Your task to perform on an android device: Search for acer nitro on costco.com, select the first entry, and add it to the cart. Image 0: 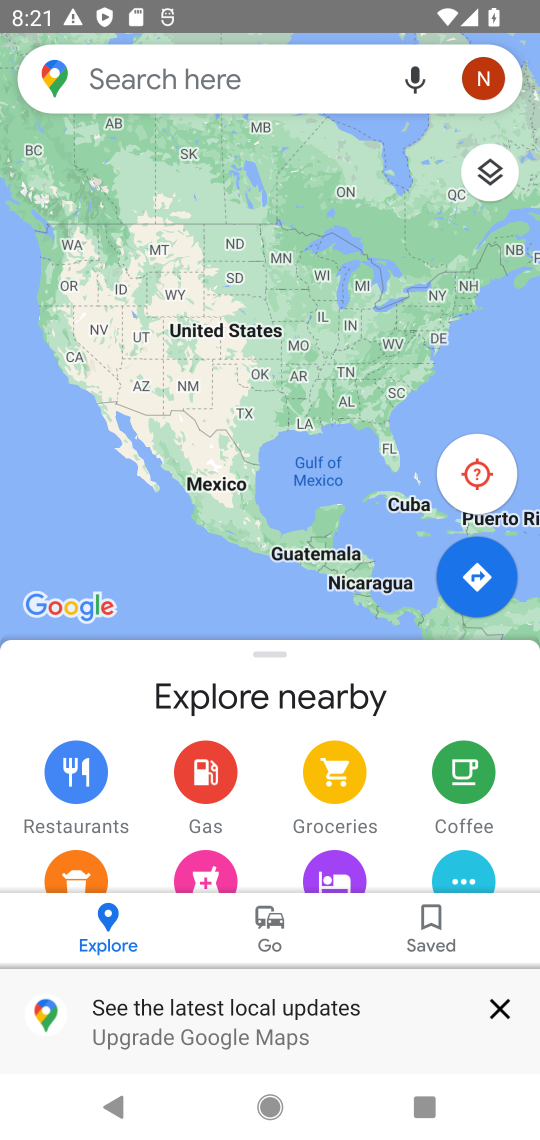
Step 0: press home button
Your task to perform on an android device: Search for acer nitro on costco.com, select the first entry, and add it to the cart. Image 1: 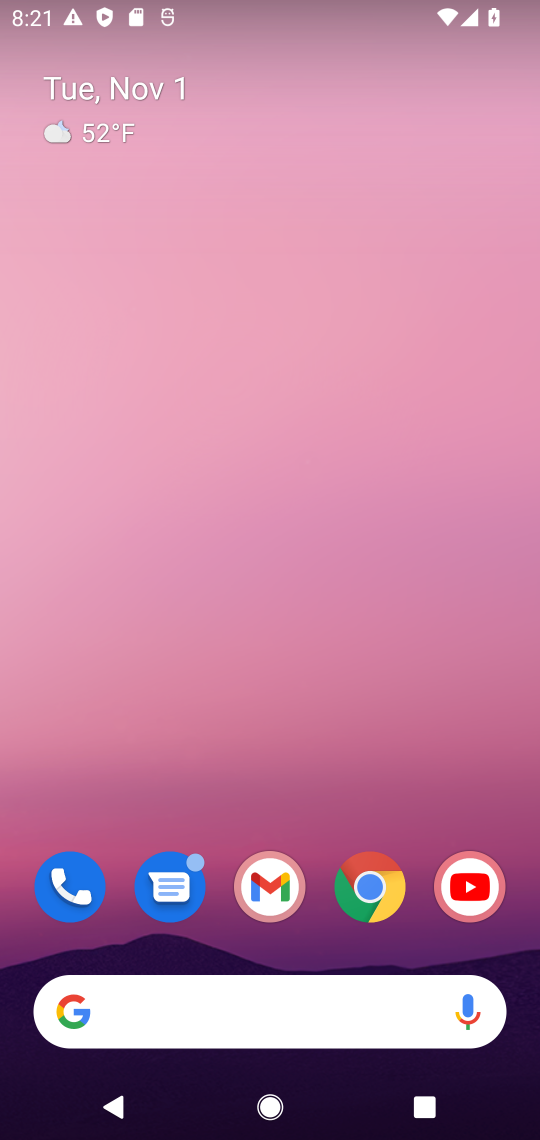
Step 1: drag from (151, 916) to (176, 227)
Your task to perform on an android device: Search for acer nitro on costco.com, select the first entry, and add it to the cart. Image 2: 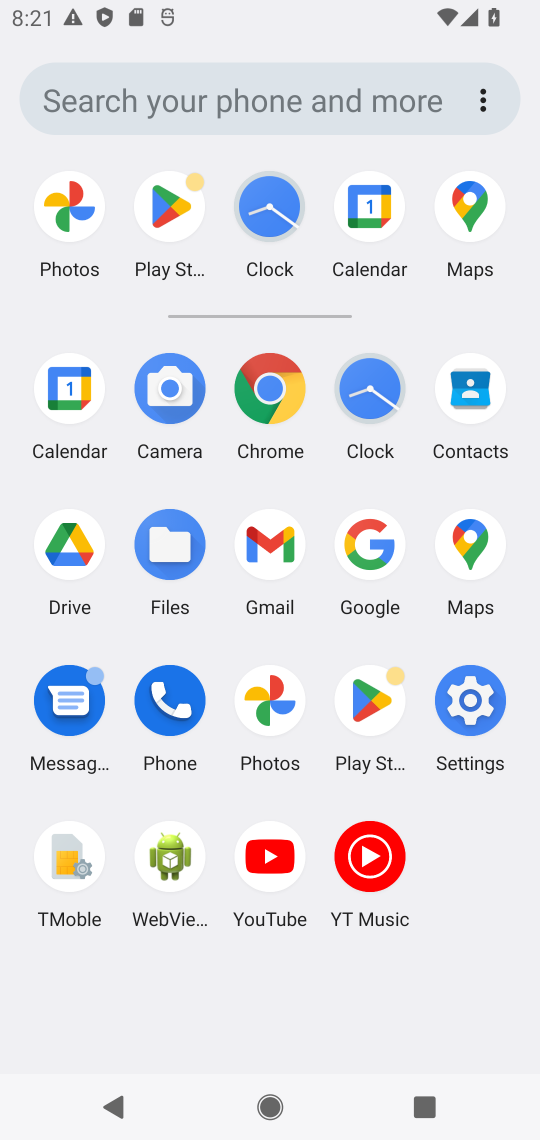
Step 2: click (366, 529)
Your task to perform on an android device: Search for acer nitro on costco.com, select the first entry, and add it to the cart. Image 3: 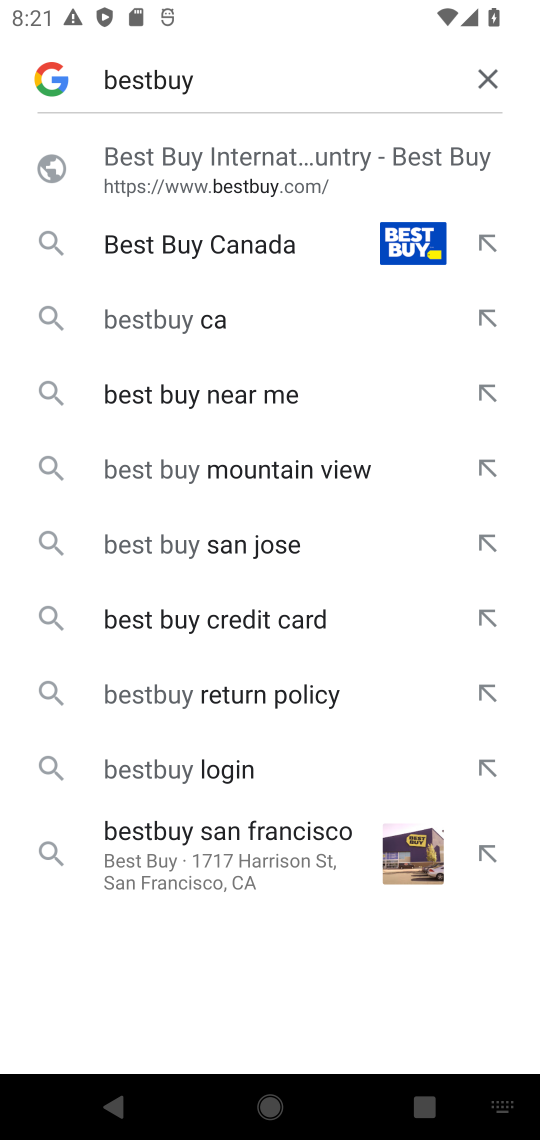
Step 3: click (481, 76)
Your task to perform on an android device: Search for acer nitro on costco.com, select the first entry, and add it to the cart. Image 4: 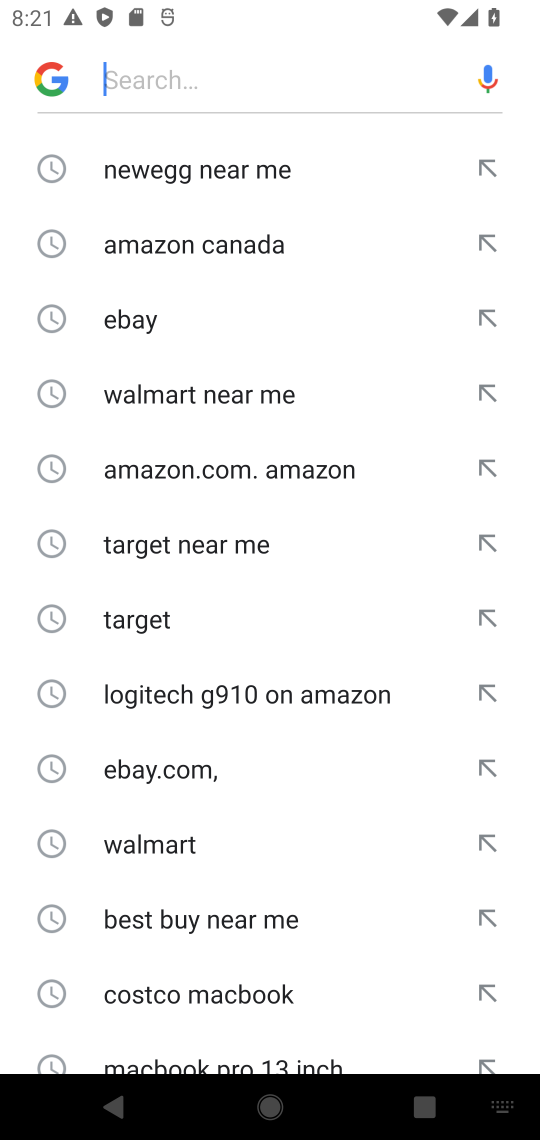
Step 4: click (237, 67)
Your task to perform on an android device: Search for acer nitro on costco.com, select the first entry, and add it to the cart. Image 5: 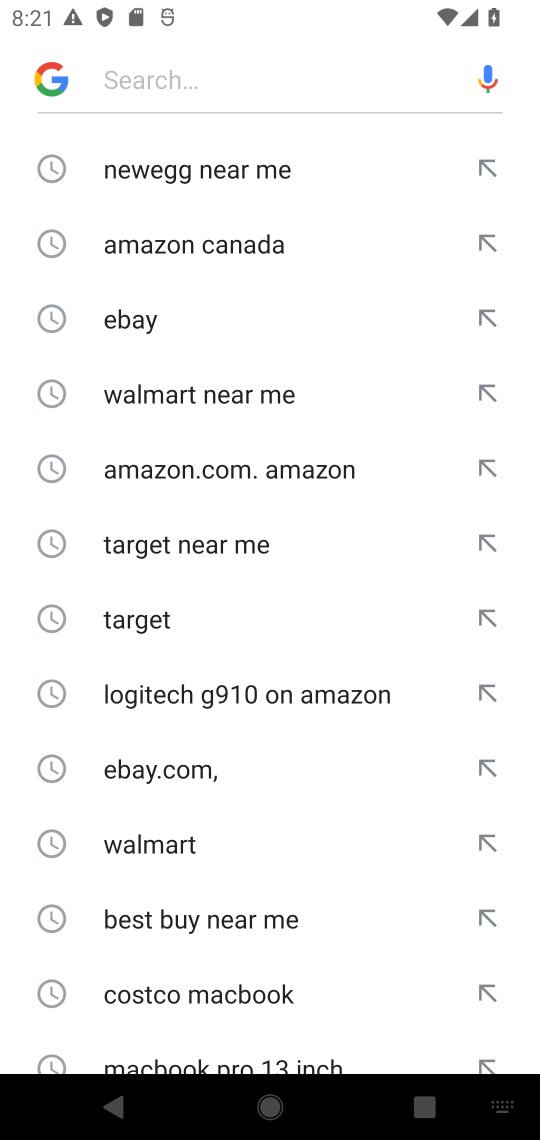
Step 5: type "costco "
Your task to perform on an android device: Search for acer nitro on costco.com, select the first entry, and add it to the cart. Image 6: 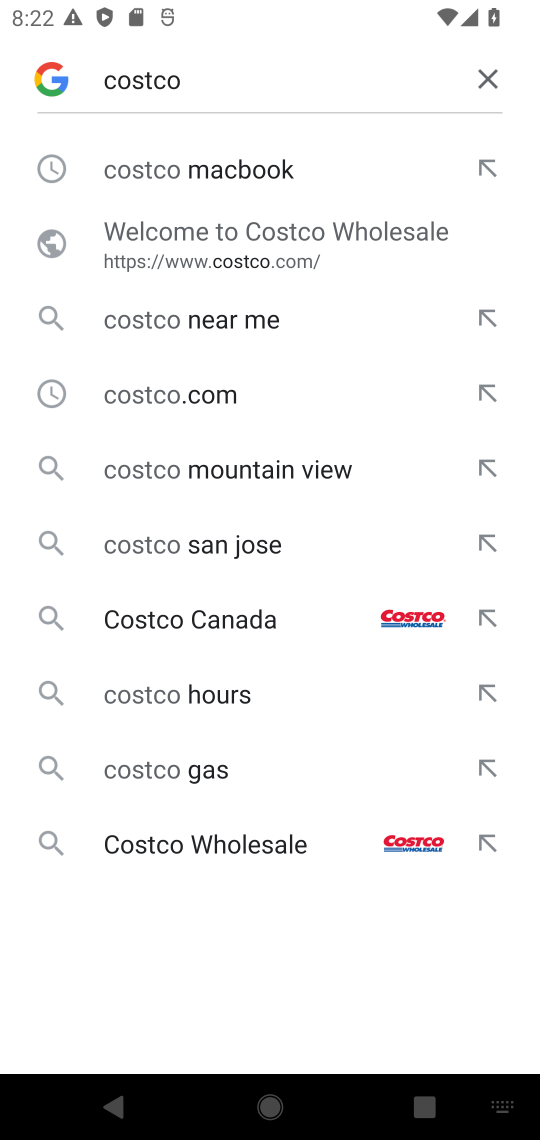
Step 6: click (193, 395)
Your task to perform on an android device: Search for acer nitro on costco.com, select the first entry, and add it to the cart. Image 7: 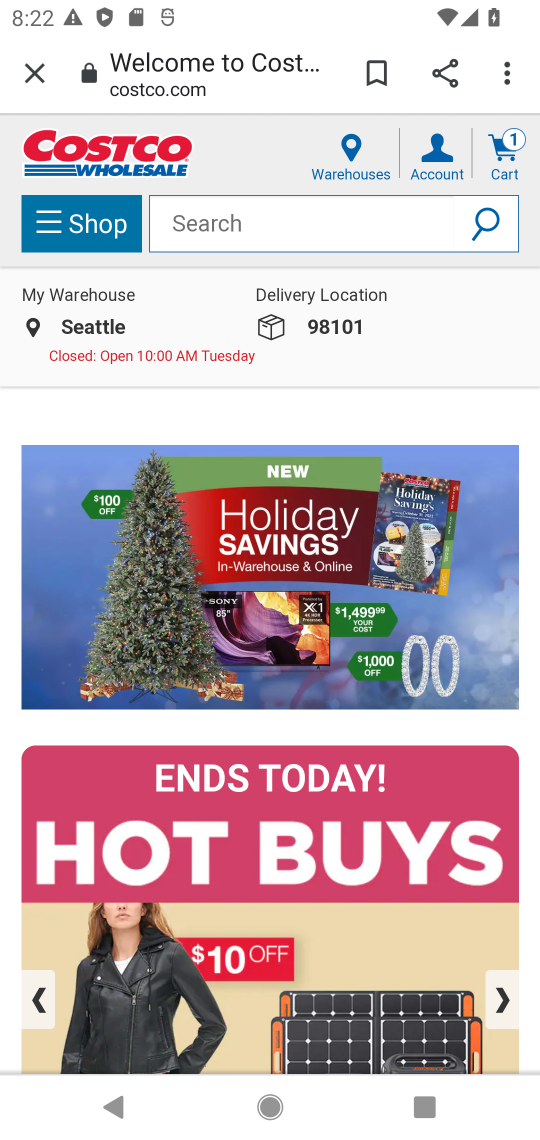
Step 7: click (192, 224)
Your task to perform on an android device: Search for acer nitro on costco.com, select the first entry, and add it to the cart. Image 8: 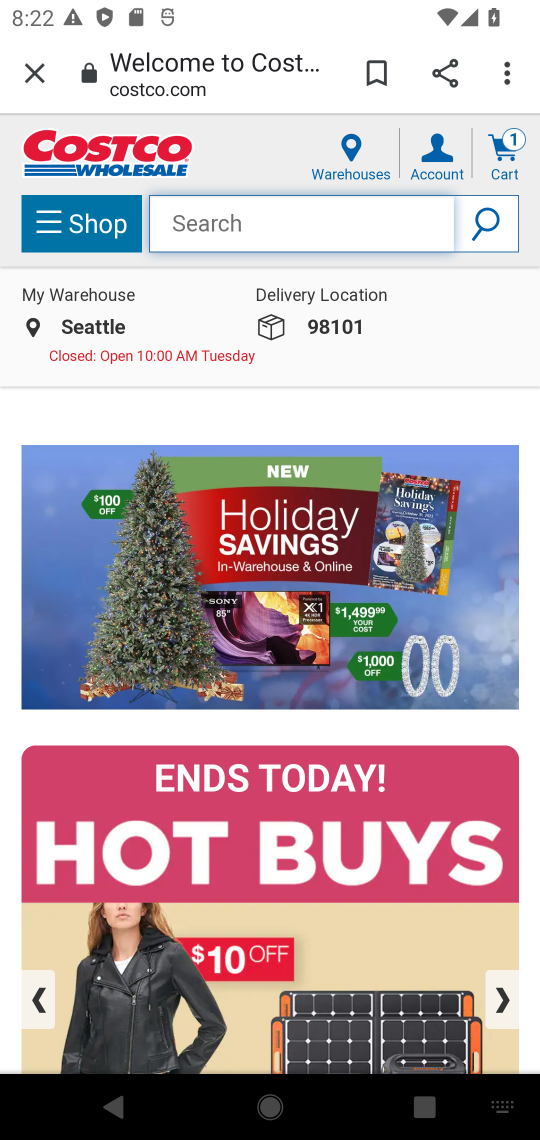
Step 8: type "acer nitro on  "
Your task to perform on an android device: Search for acer nitro on costco.com, select the first entry, and add it to the cart. Image 9: 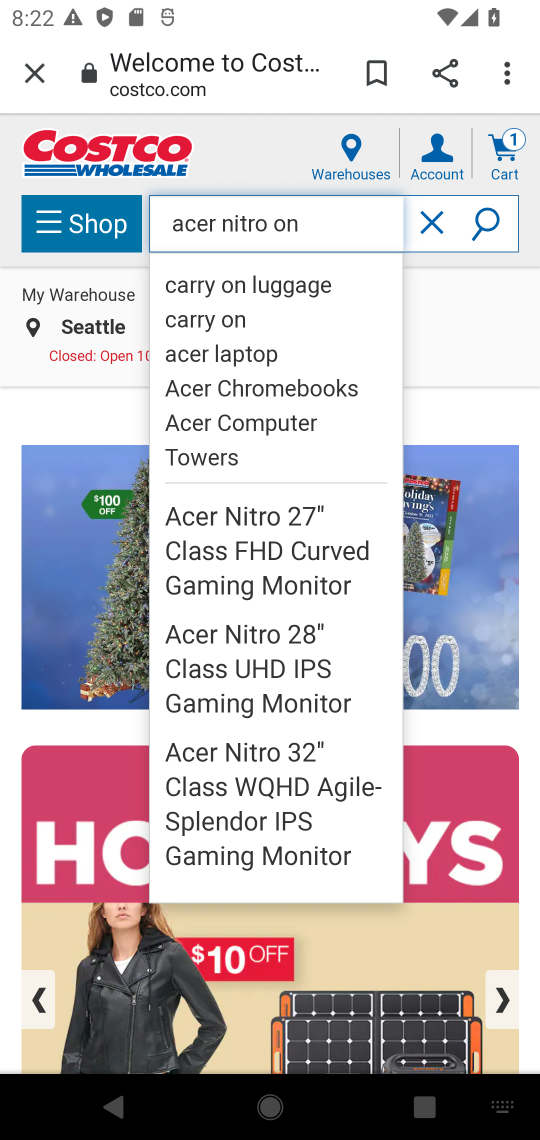
Step 9: click (232, 746)
Your task to perform on an android device: Search for acer nitro on costco.com, select the first entry, and add it to the cart. Image 10: 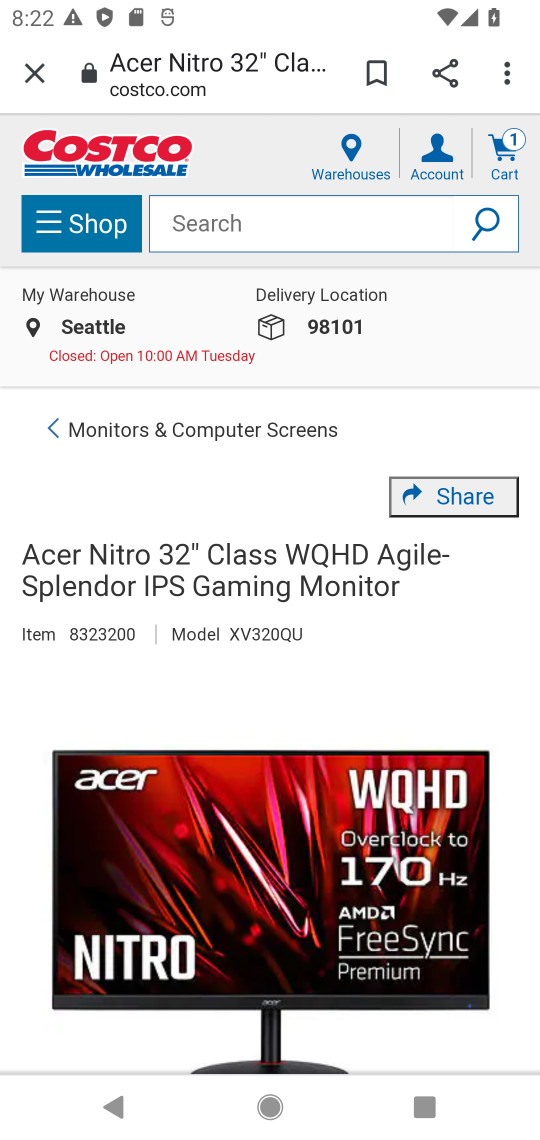
Step 10: drag from (330, 887) to (333, 281)
Your task to perform on an android device: Search for acer nitro on costco.com, select the first entry, and add it to the cart. Image 11: 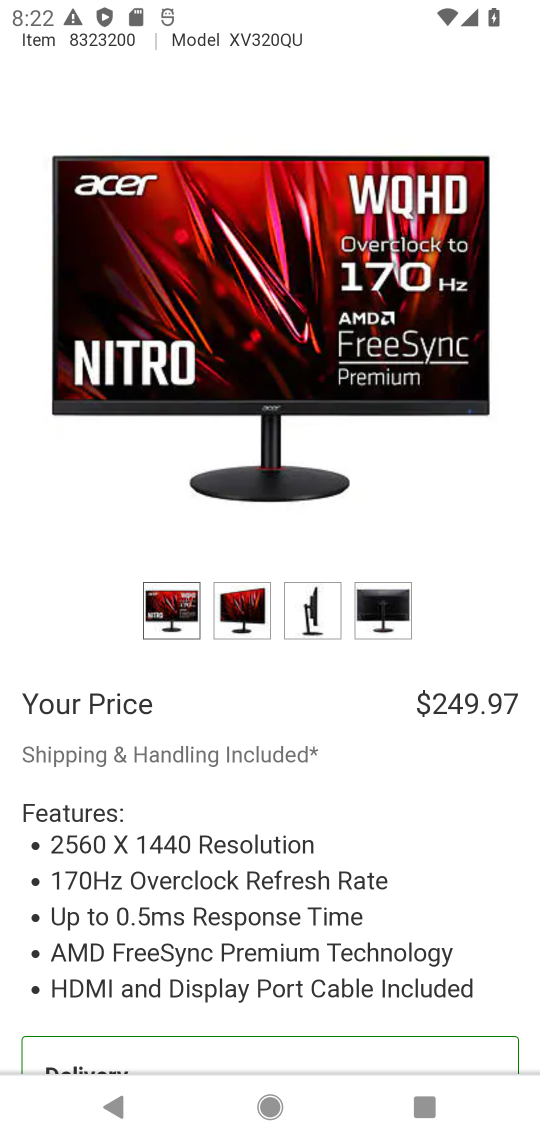
Step 11: drag from (309, 921) to (335, 306)
Your task to perform on an android device: Search for acer nitro on costco.com, select the first entry, and add it to the cart. Image 12: 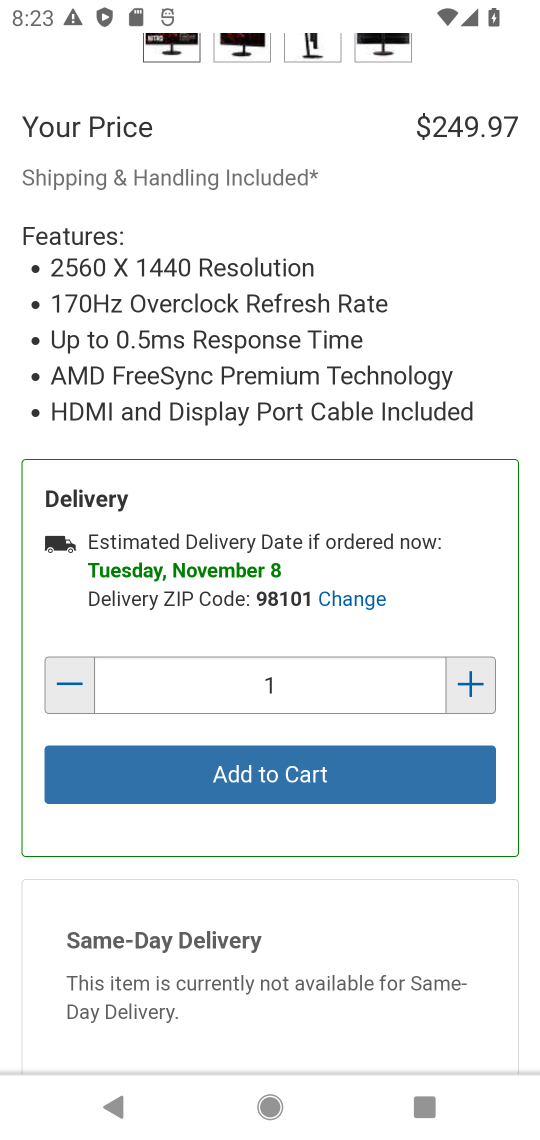
Step 12: click (269, 774)
Your task to perform on an android device: Search for acer nitro on costco.com, select the first entry, and add it to the cart. Image 13: 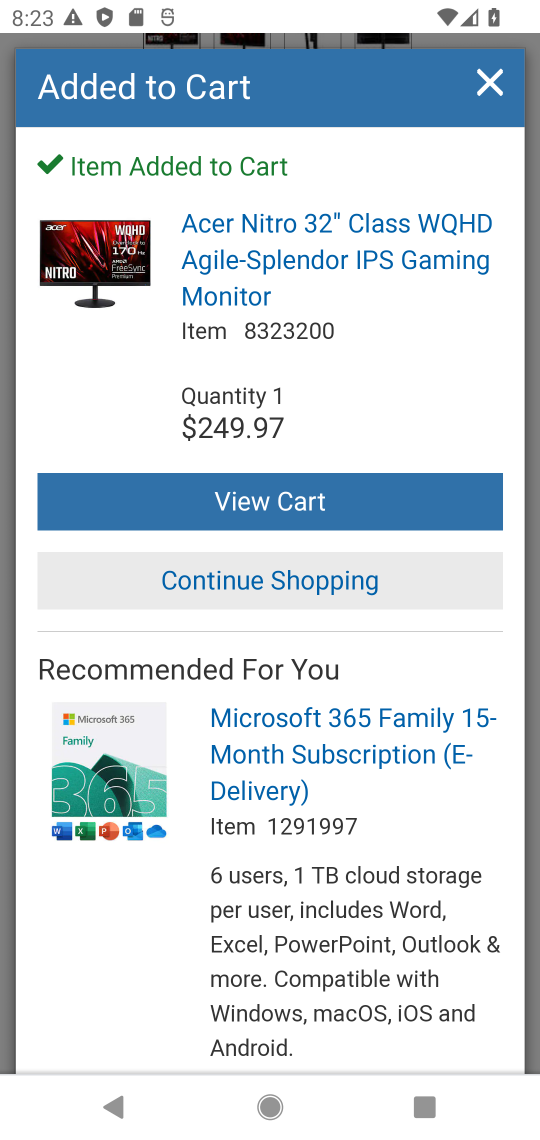
Step 13: task complete